Your task to perform on an android device: show emergency info Image 0: 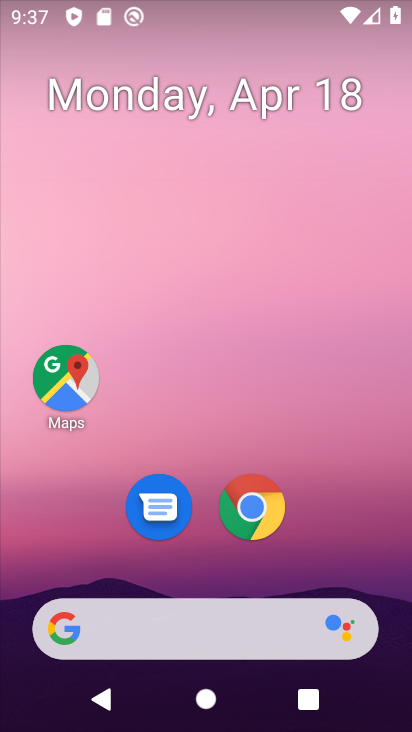
Step 0: drag from (193, 581) to (314, 93)
Your task to perform on an android device: show emergency info Image 1: 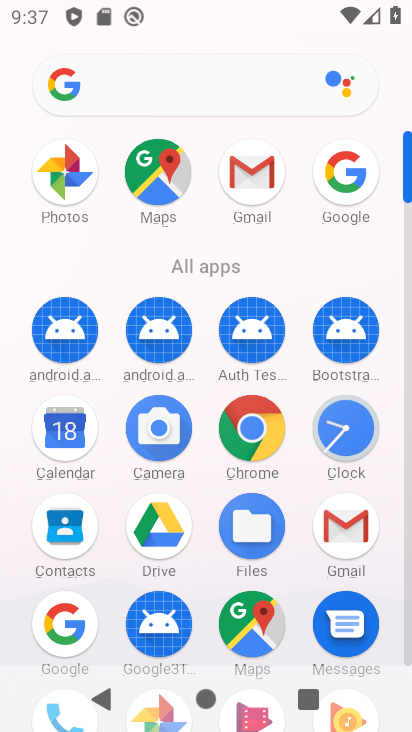
Step 1: drag from (128, 649) to (328, 231)
Your task to perform on an android device: show emergency info Image 2: 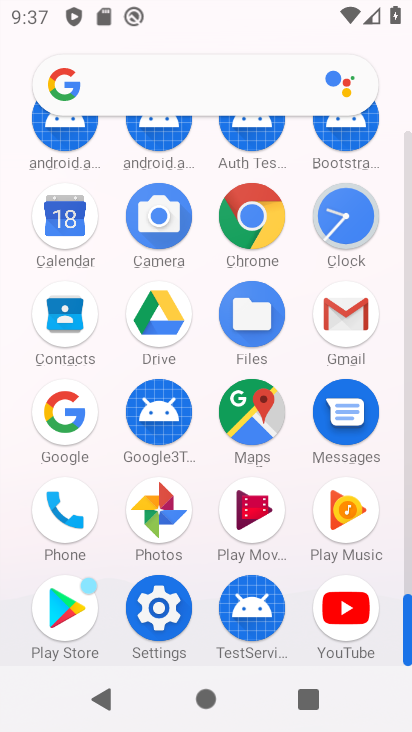
Step 2: click (163, 628)
Your task to perform on an android device: show emergency info Image 3: 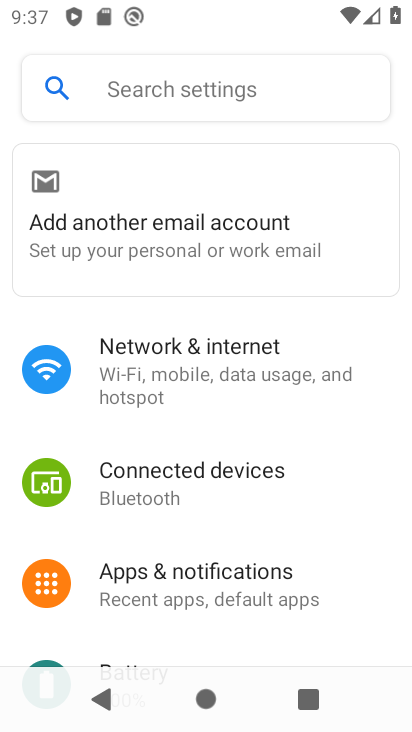
Step 3: drag from (182, 570) to (406, 109)
Your task to perform on an android device: show emergency info Image 4: 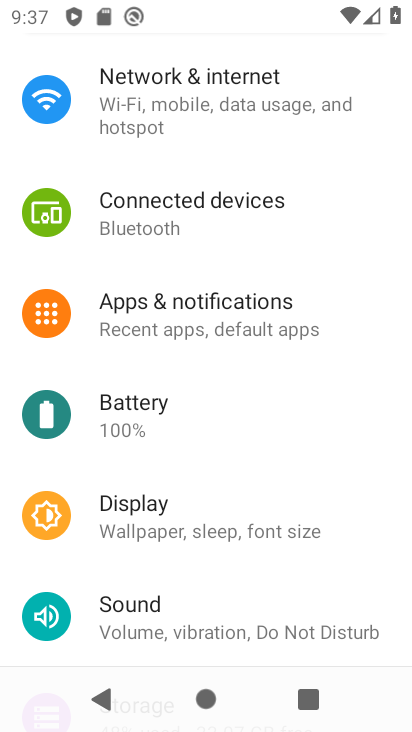
Step 4: drag from (223, 543) to (396, 145)
Your task to perform on an android device: show emergency info Image 5: 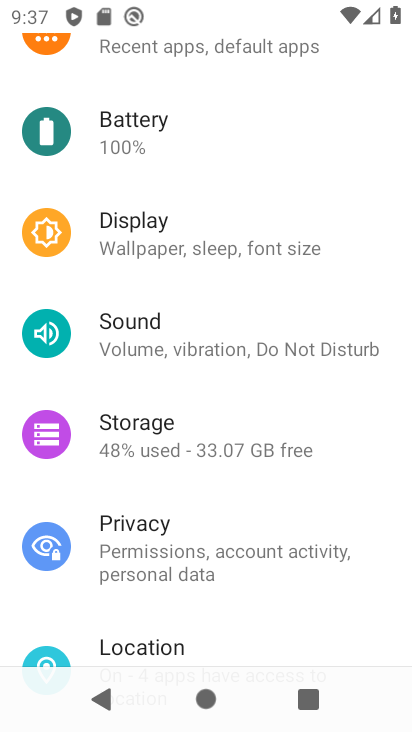
Step 5: drag from (236, 596) to (377, 198)
Your task to perform on an android device: show emergency info Image 6: 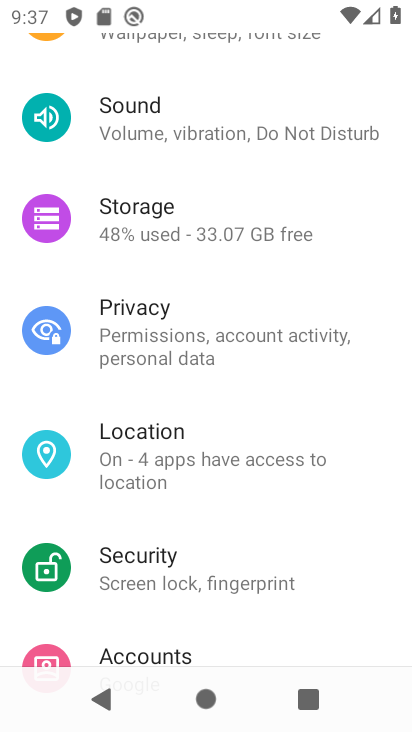
Step 6: drag from (202, 576) to (359, 270)
Your task to perform on an android device: show emergency info Image 7: 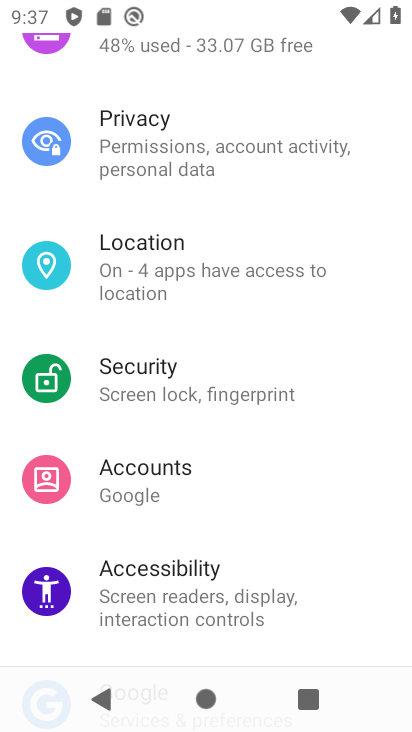
Step 7: drag from (166, 611) to (337, 258)
Your task to perform on an android device: show emergency info Image 8: 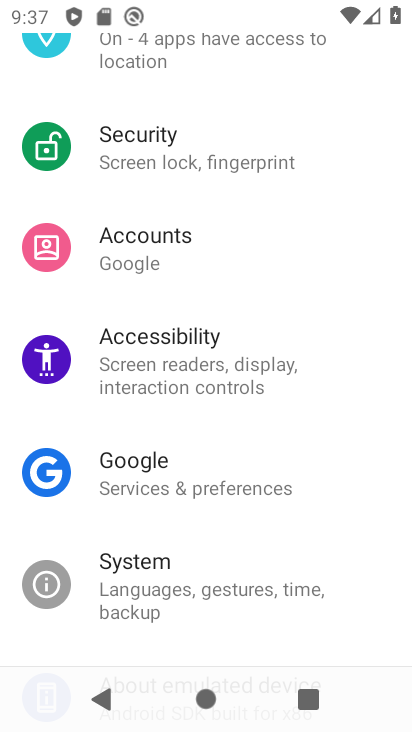
Step 8: drag from (248, 515) to (371, 261)
Your task to perform on an android device: show emergency info Image 9: 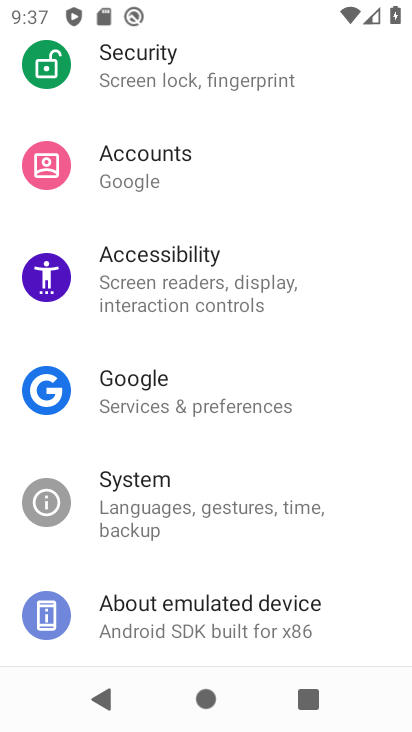
Step 9: click (242, 622)
Your task to perform on an android device: show emergency info Image 10: 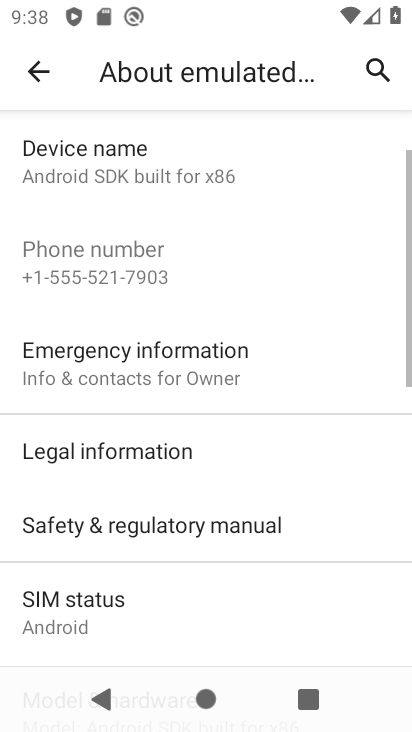
Step 10: click (238, 378)
Your task to perform on an android device: show emergency info Image 11: 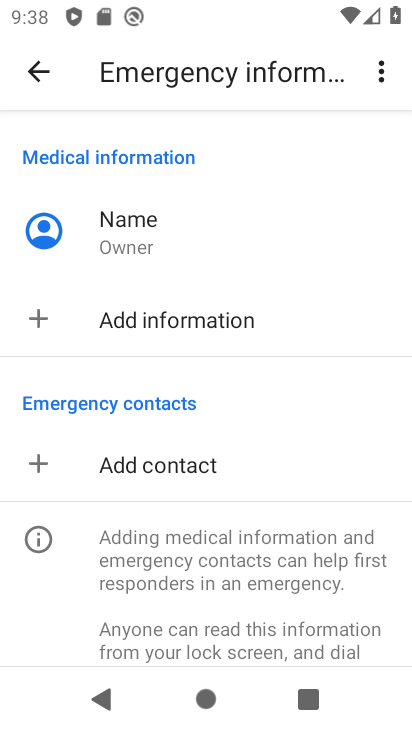
Step 11: task complete